Your task to perform on an android device: Open battery settings Image 0: 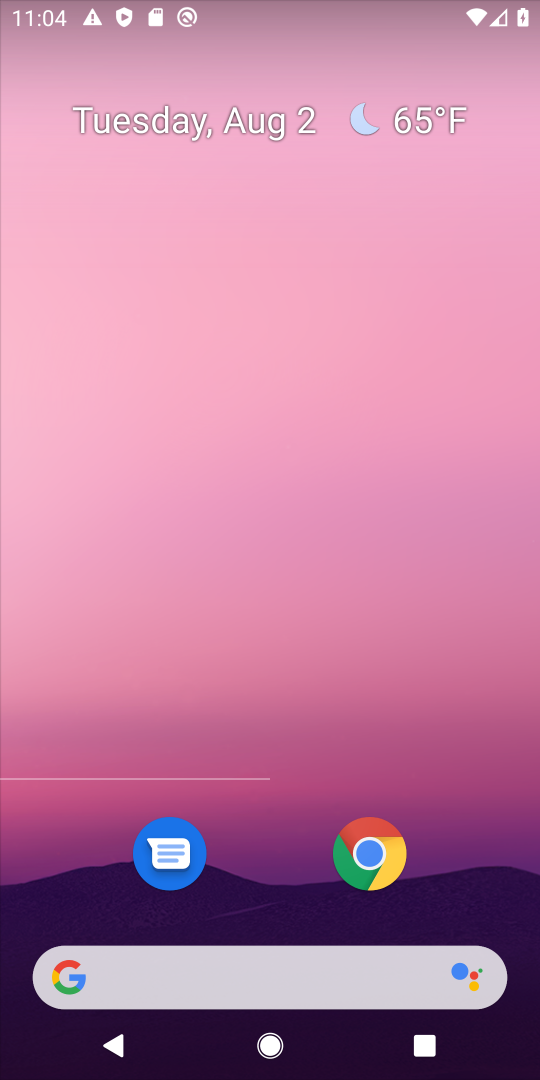
Step 0: press home button
Your task to perform on an android device: Open battery settings Image 1: 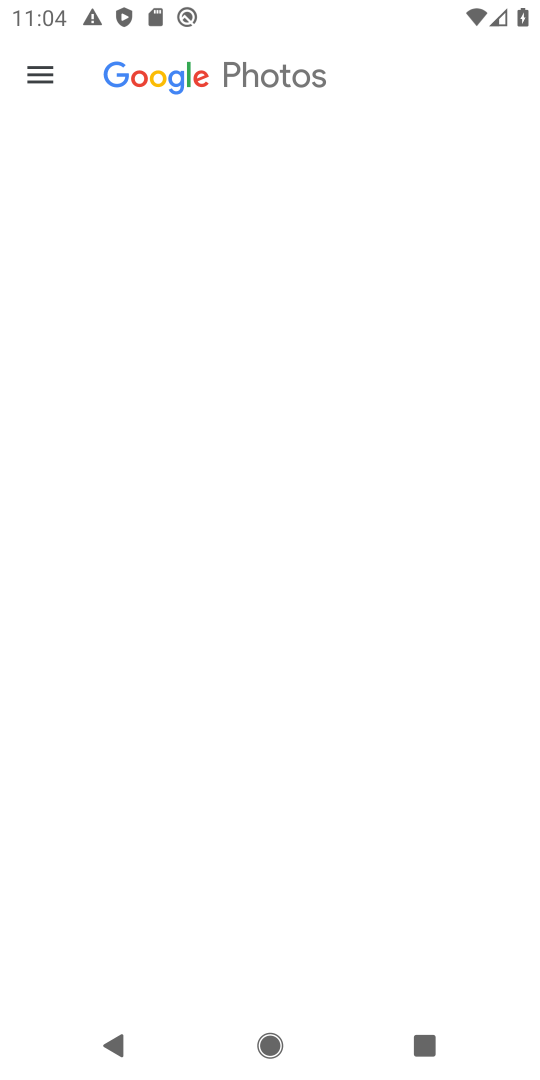
Step 1: drag from (312, 54) to (449, 40)
Your task to perform on an android device: Open battery settings Image 2: 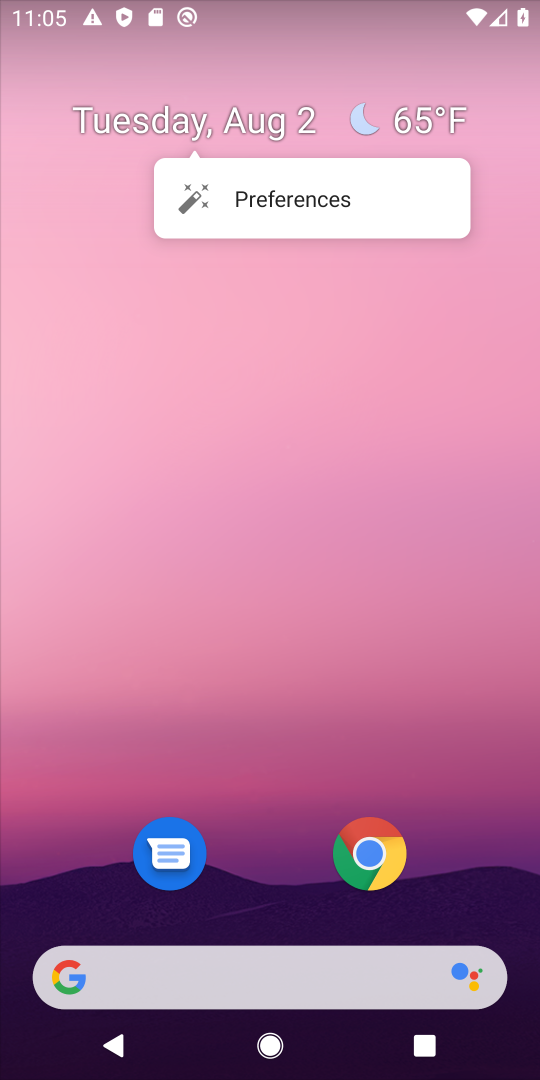
Step 2: drag from (255, 791) to (350, 137)
Your task to perform on an android device: Open battery settings Image 3: 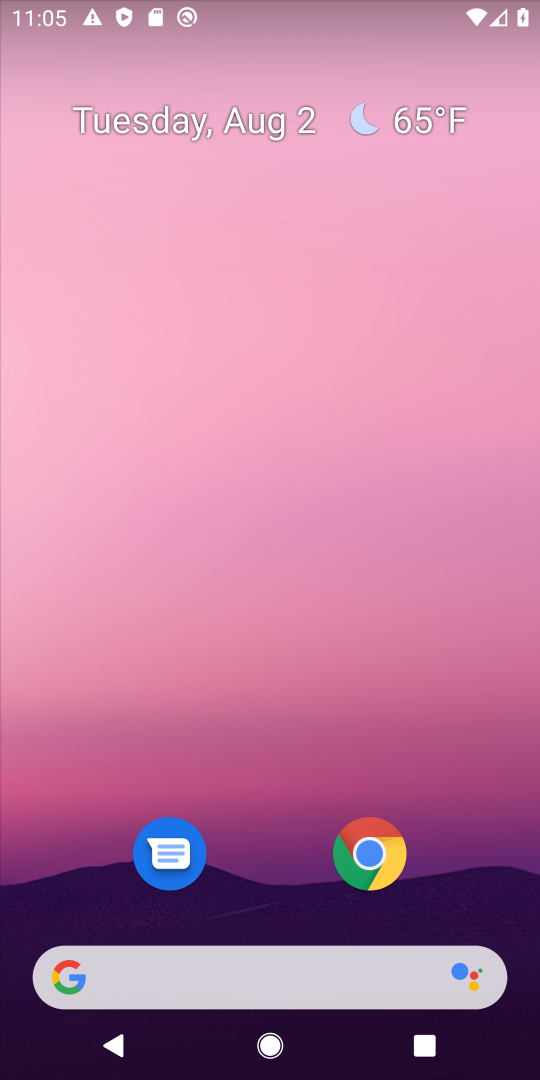
Step 3: drag from (294, 797) to (337, 67)
Your task to perform on an android device: Open battery settings Image 4: 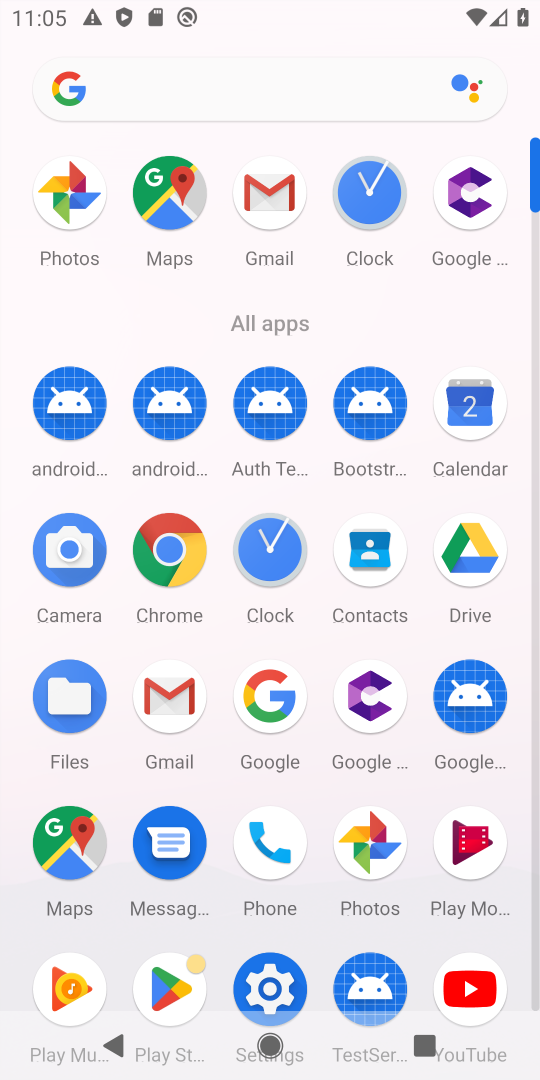
Step 4: click (259, 1008)
Your task to perform on an android device: Open battery settings Image 5: 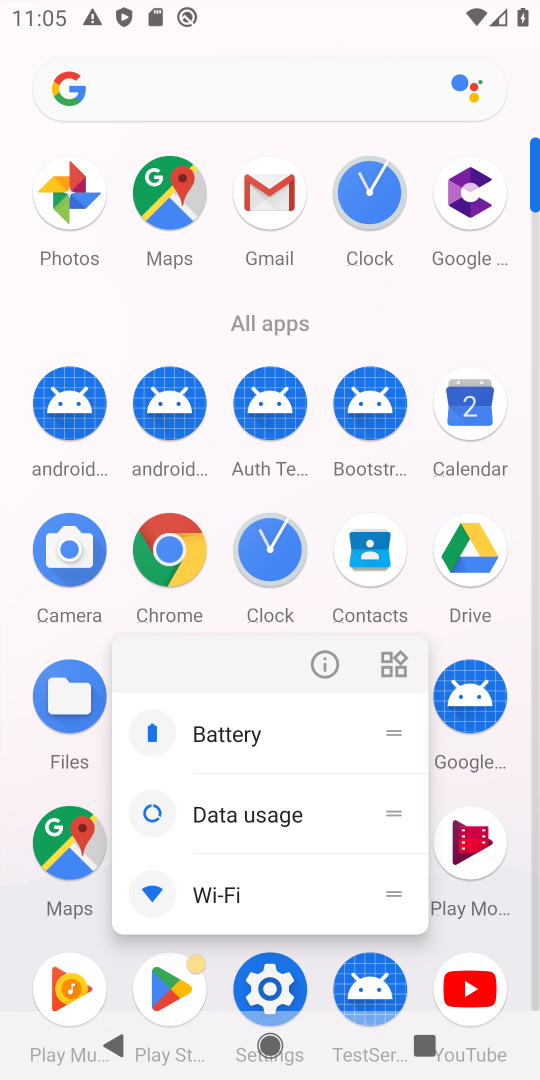
Step 5: click (291, 966)
Your task to perform on an android device: Open battery settings Image 6: 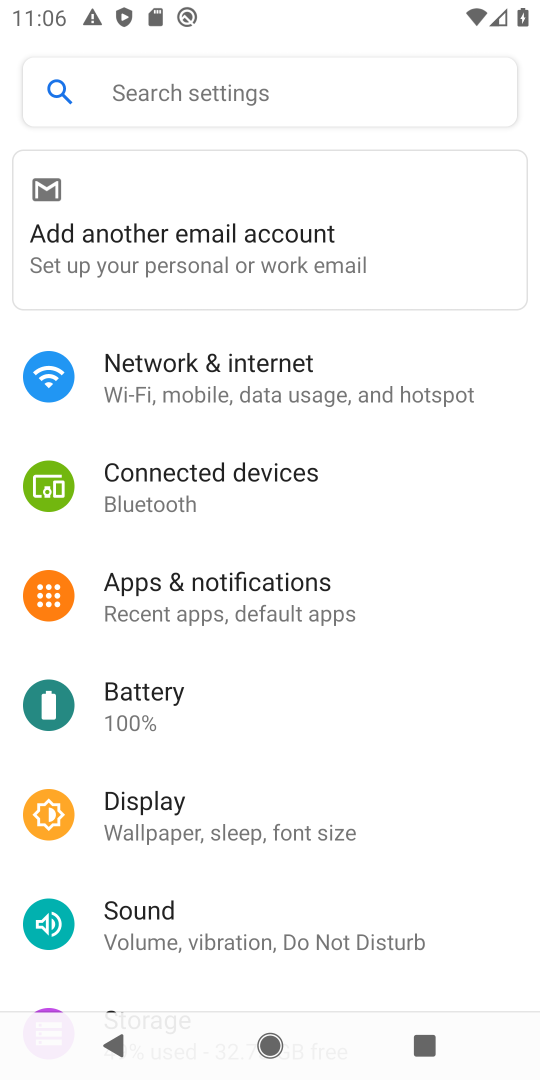
Step 6: click (139, 722)
Your task to perform on an android device: Open battery settings Image 7: 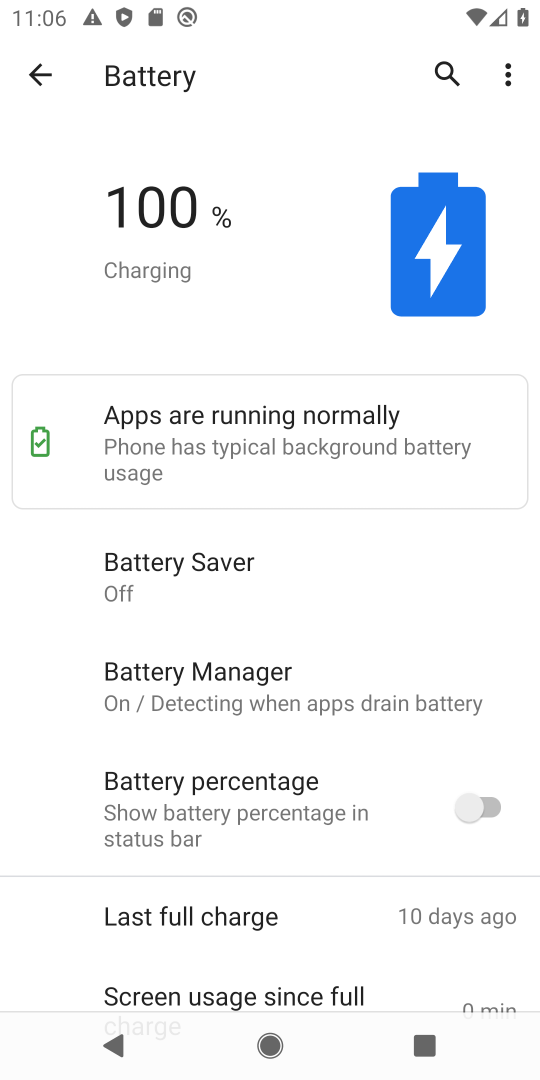
Step 7: task complete